Your task to perform on an android device: Open my contact list Image 0: 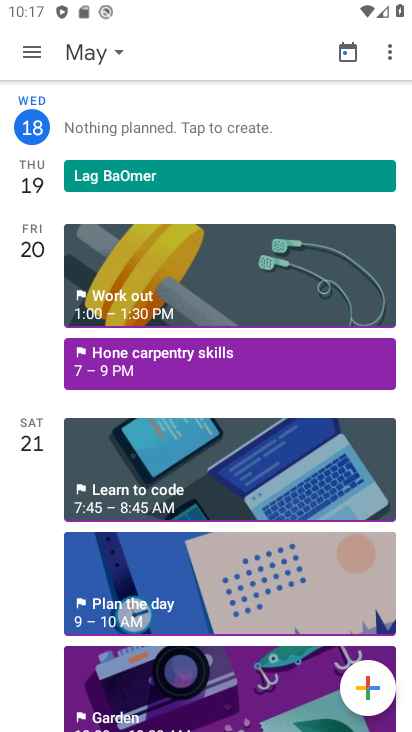
Step 0: press back button
Your task to perform on an android device: Open my contact list Image 1: 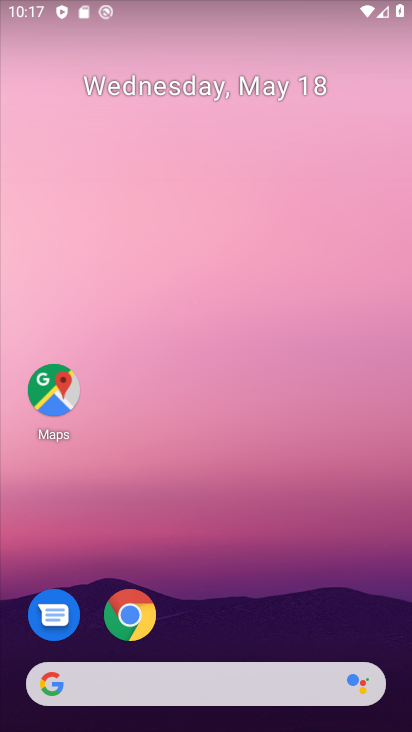
Step 1: drag from (260, 505) to (227, 11)
Your task to perform on an android device: Open my contact list Image 2: 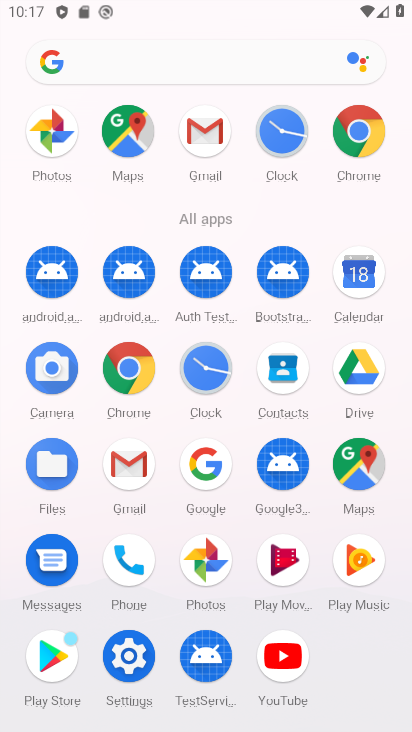
Step 2: click (282, 362)
Your task to perform on an android device: Open my contact list Image 3: 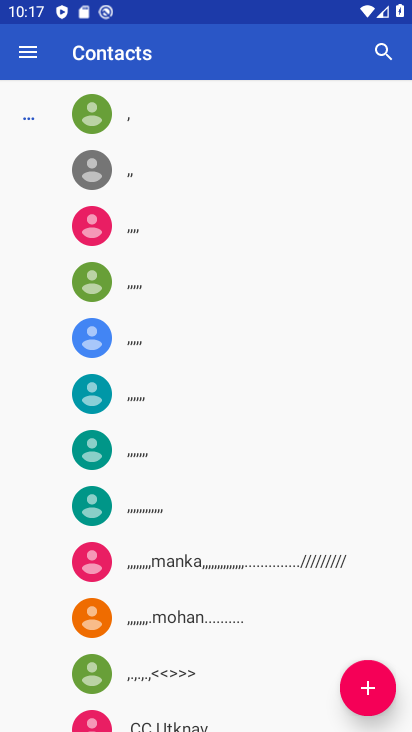
Step 3: task complete